Your task to perform on an android device: Empty the shopping cart on bestbuy. Add razer blade to the cart on bestbuy Image 0: 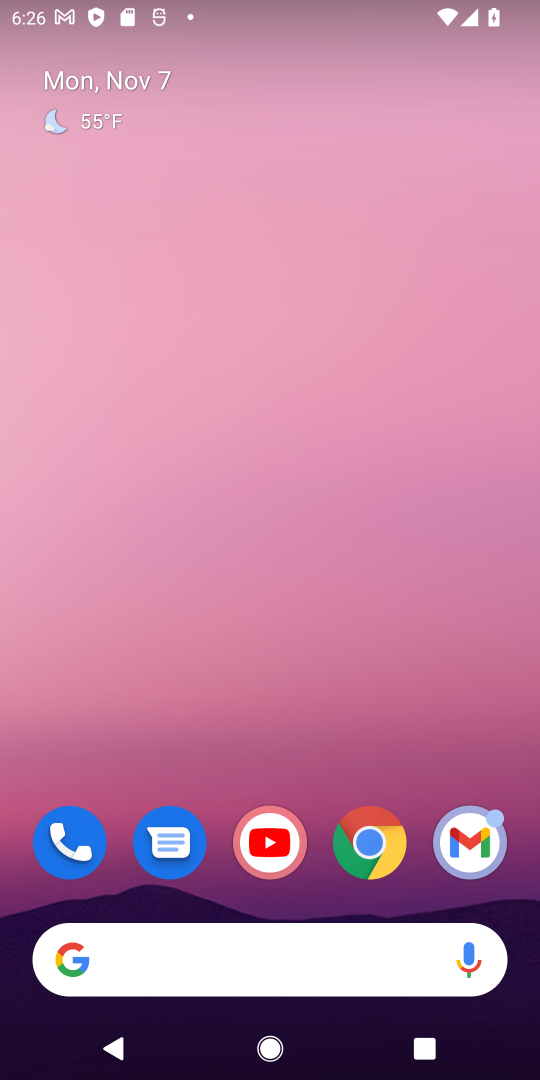
Step 0: press home button
Your task to perform on an android device: Empty the shopping cart on bestbuy. Add razer blade to the cart on bestbuy Image 1: 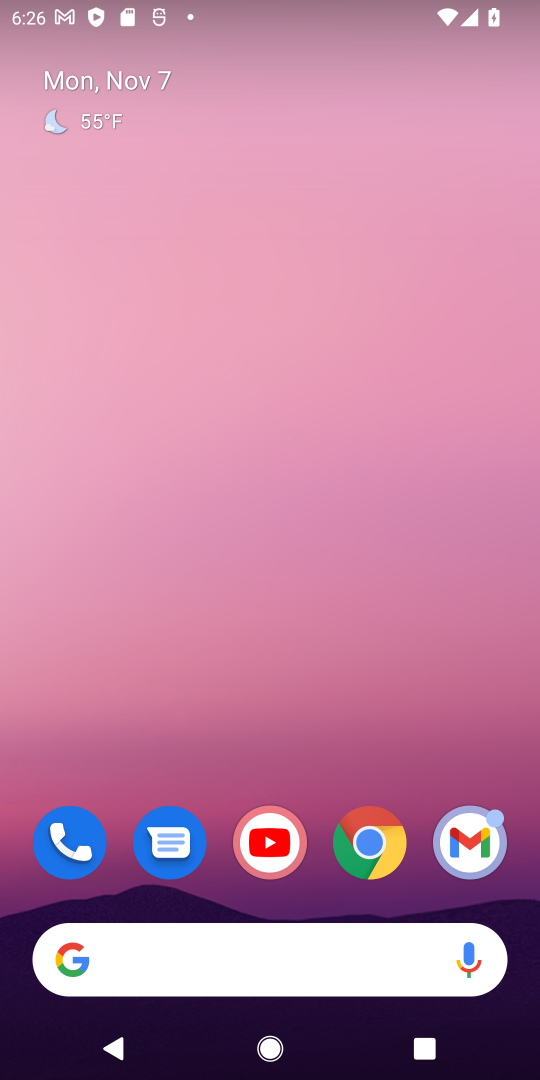
Step 1: click (386, 835)
Your task to perform on an android device: Empty the shopping cart on bestbuy. Add razer blade to the cart on bestbuy Image 2: 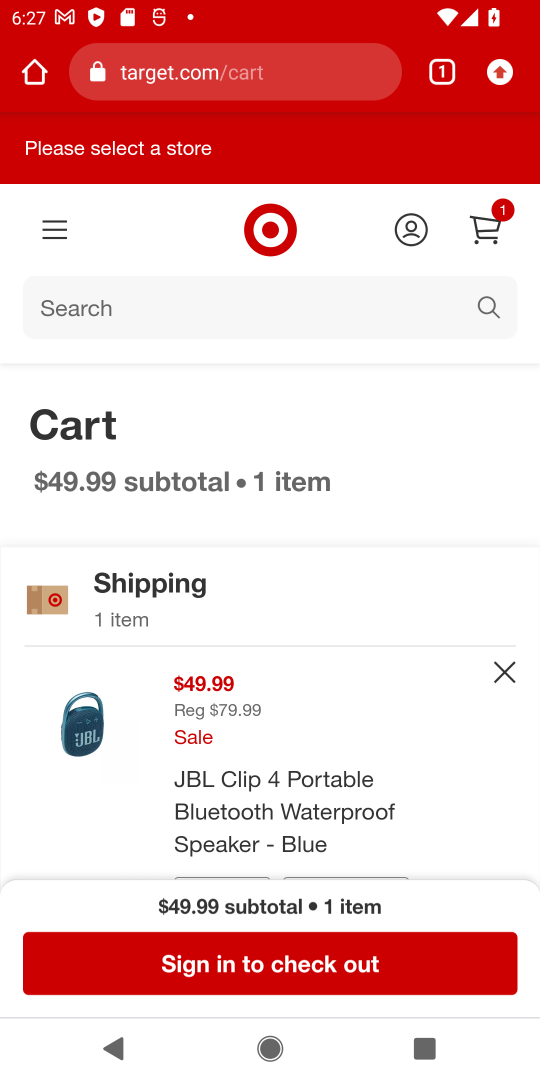
Step 2: click (247, 67)
Your task to perform on an android device: Empty the shopping cart on bestbuy. Add razer blade to the cart on bestbuy Image 3: 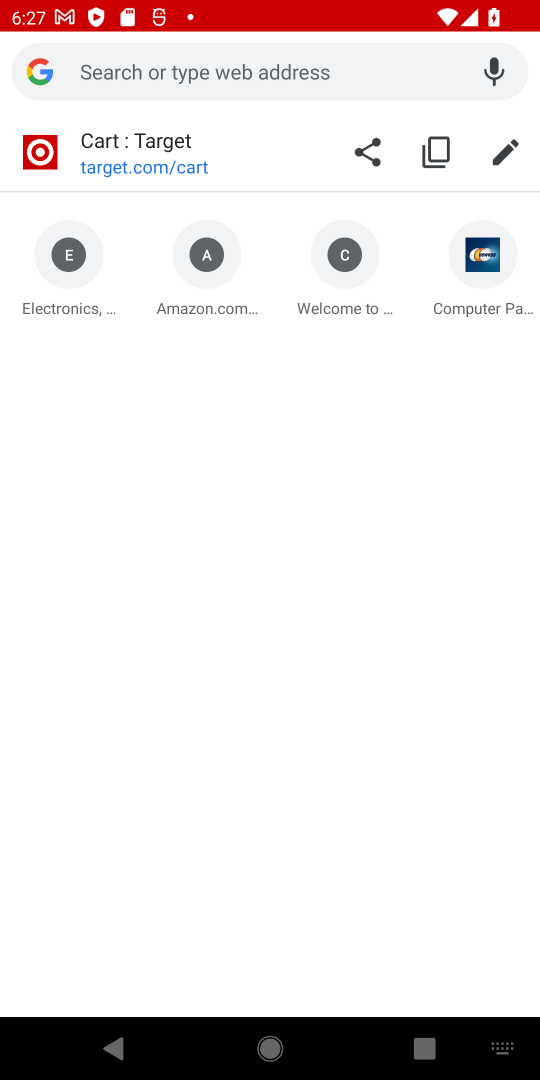
Step 3: type "bestbuy"
Your task to perform on an android device: Empty the shopping cart on bestbuy. Add razer blade to the cart on bestbuy Image 4: 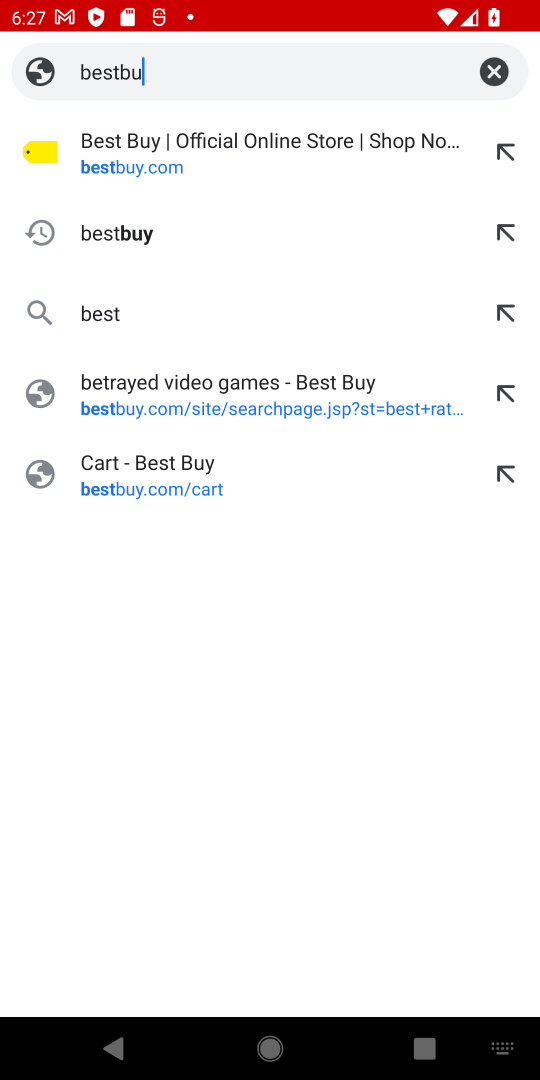
Step 4: press enter
Your task to perform on an android device: Empty the shopping cart on bestbuy. Add razer blade to the cart on bestbuy Image 5: 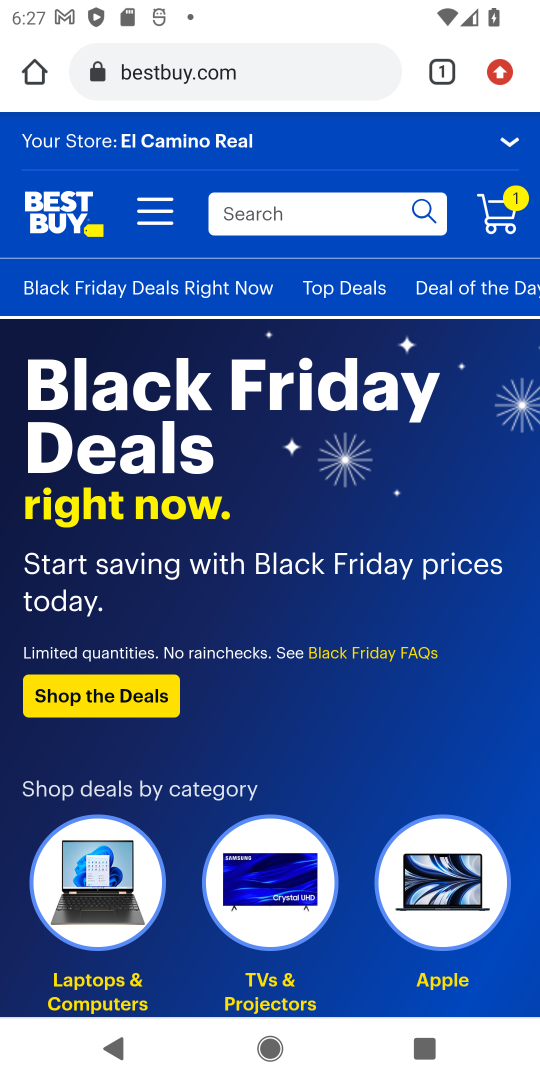
Step 5: click (362, 213)
Your task to perform on an android device: Empty the shopping cart on bestbuy. Add razer blade to the cart on bestbuy Image 6: 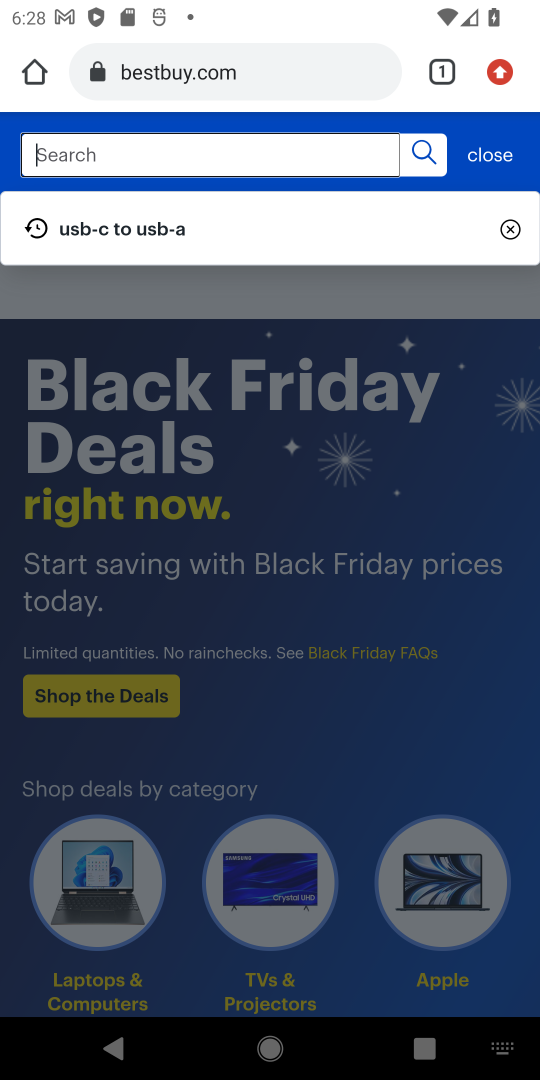
Step 6: type "razer blade"
Your task to perform on an android device: Empty the shopping cart on bestbuy. Add razer blade to the cart on bestbuy Image 7: 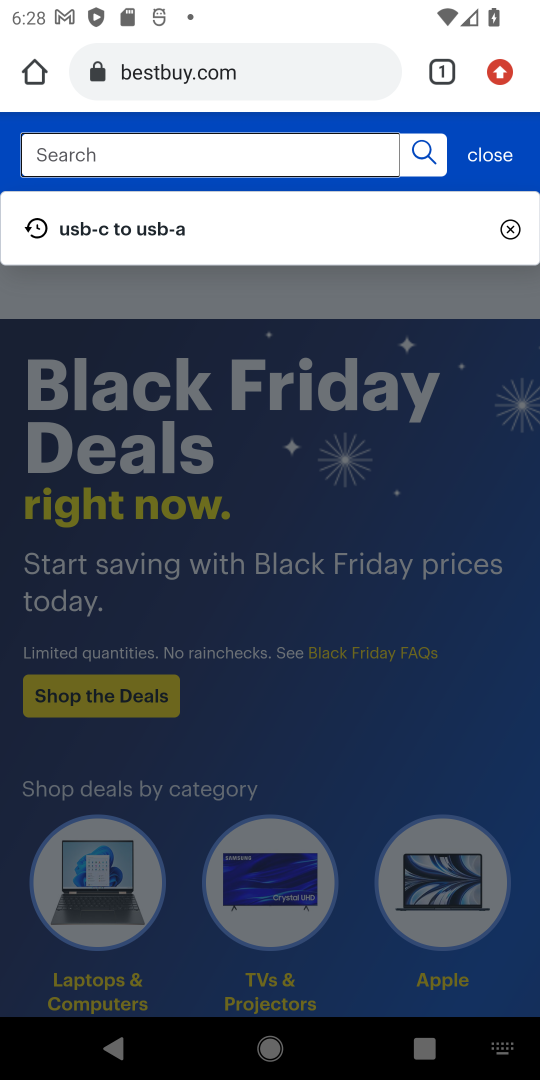
Step 7: press enter
Your task to perform on an android device: Empty the shopping cart on bestbuy. Add razer blade to the cart on bestbuy Image 8: 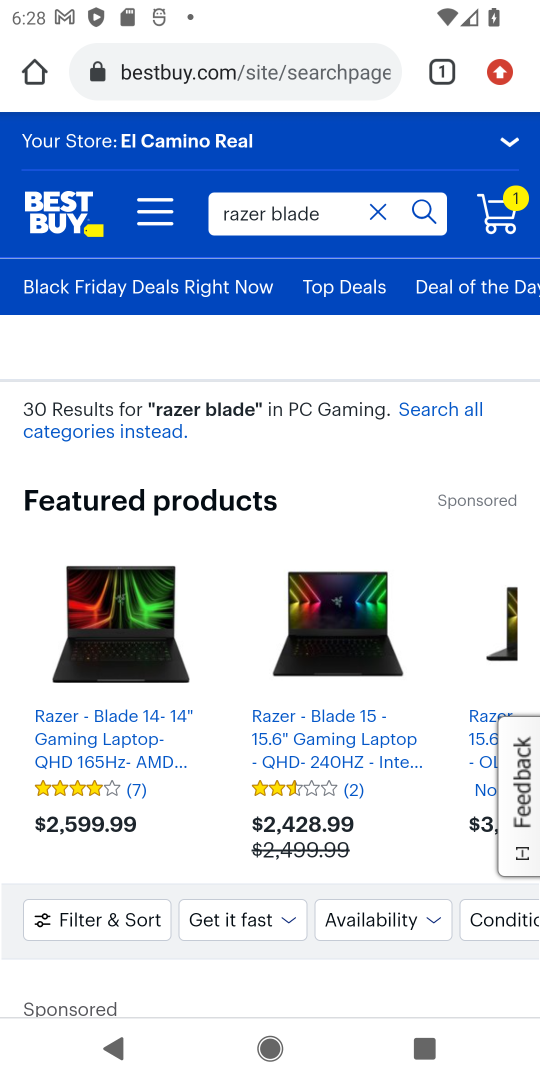
Step 8: drag from (312, 877) to (532, 320)
Your task to perform on an android device: Empty the shopping cart on bestbuy. Add razer blade to the cart on bestbuy Image 9: 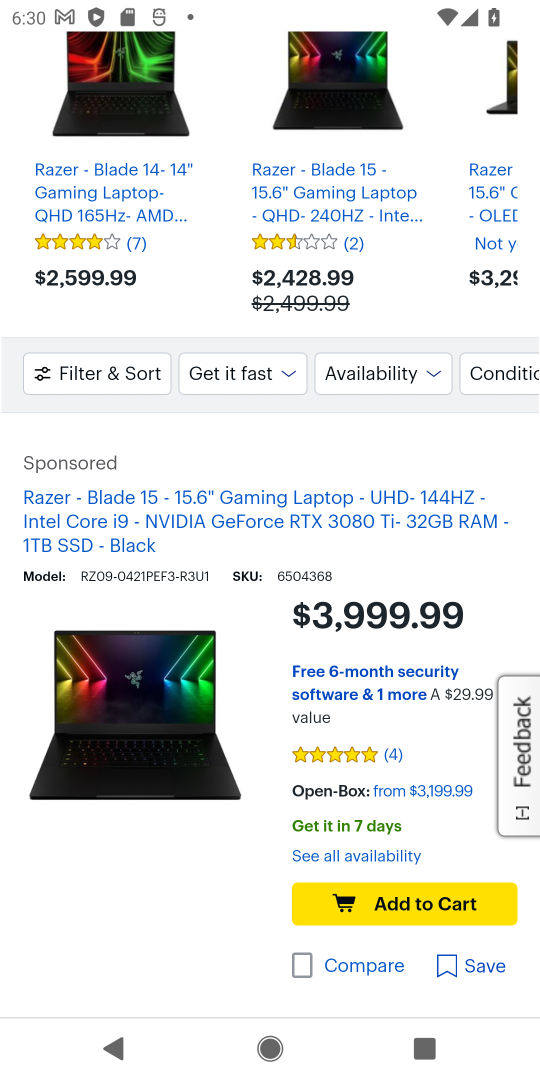
Step 9: drag from (158, 817) to (356, 521)
Your task to perform on an android device: Empty the shopping cart on bestbuy. Add razer blade to the cart on bestbuy Image 10: 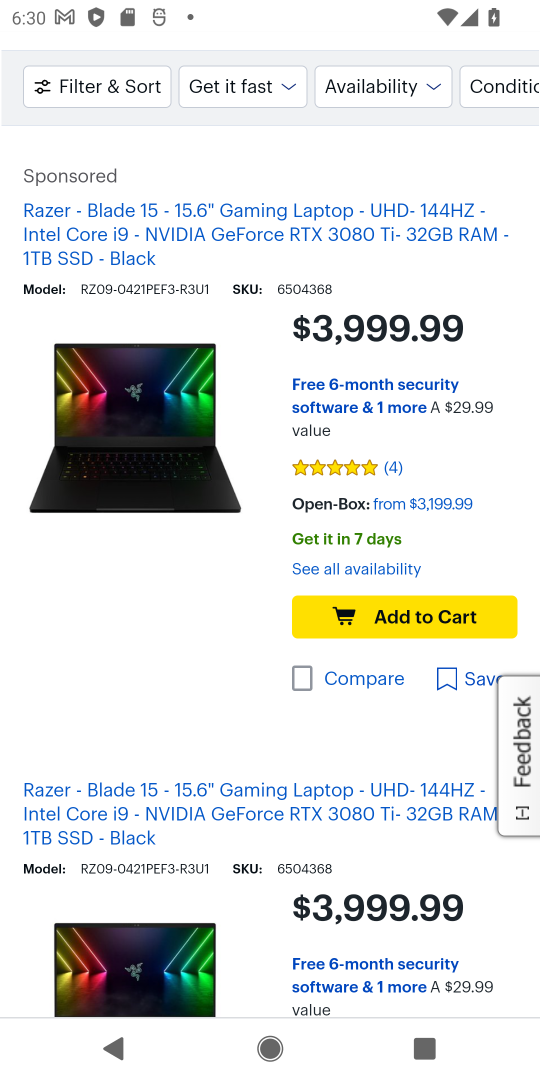
Step 10: click (396, 618)
Your task to perform on an android device: Empty the shopping cart on bestbuy. Add razer blade to the cart on bestbuy Image 11: 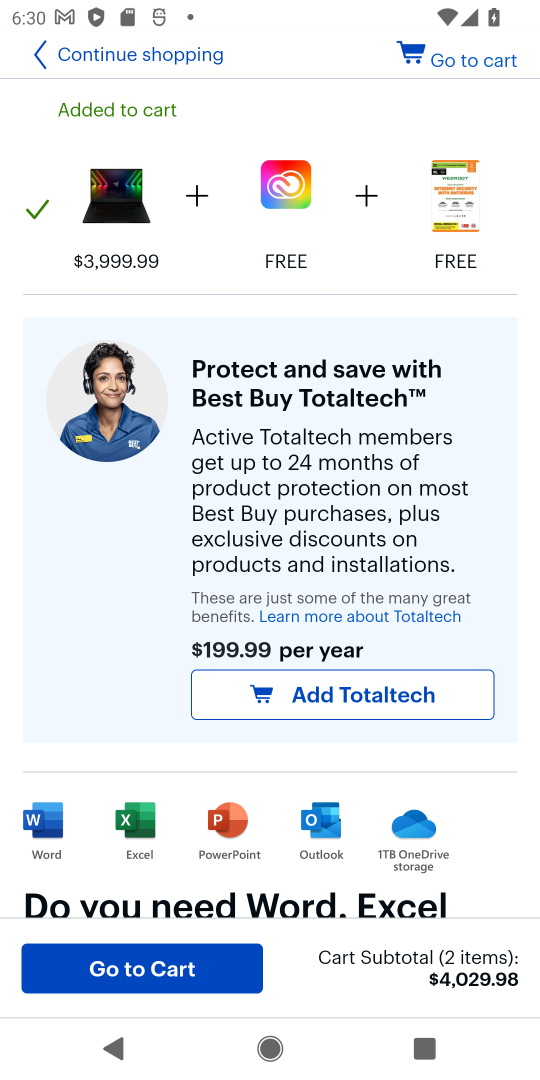
Step 11: click (464, 56)
Your task to perform on an android device: Empty the shopping cart on bestbuy. Add razer blade to the cart on bestbuy Image 12: 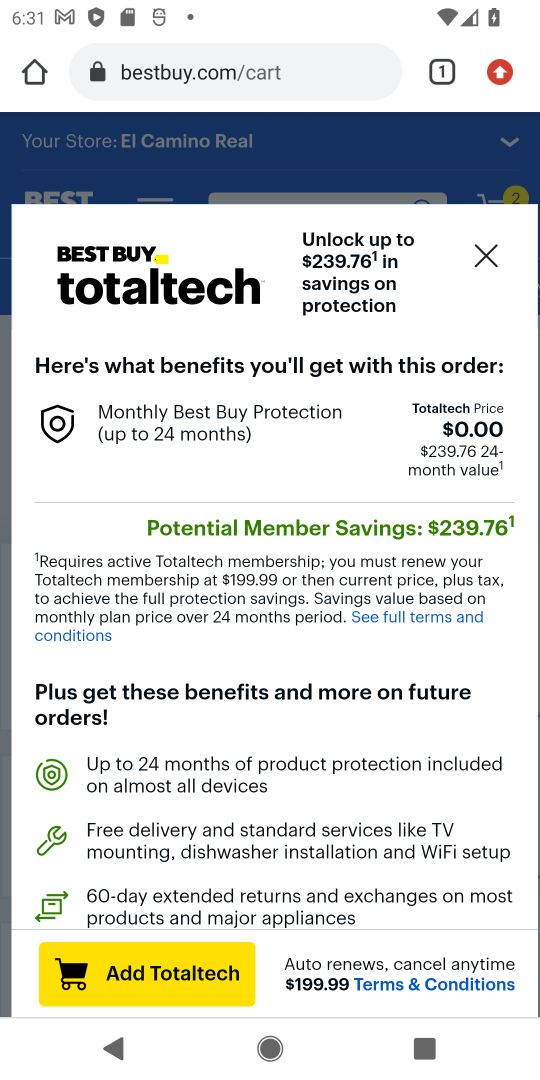
Step 12: click (484, 252)
Your task to perform on an android device: Empty the shopping cart on bestbuy. Add razer blade to the cart on bestbuy Image 13: 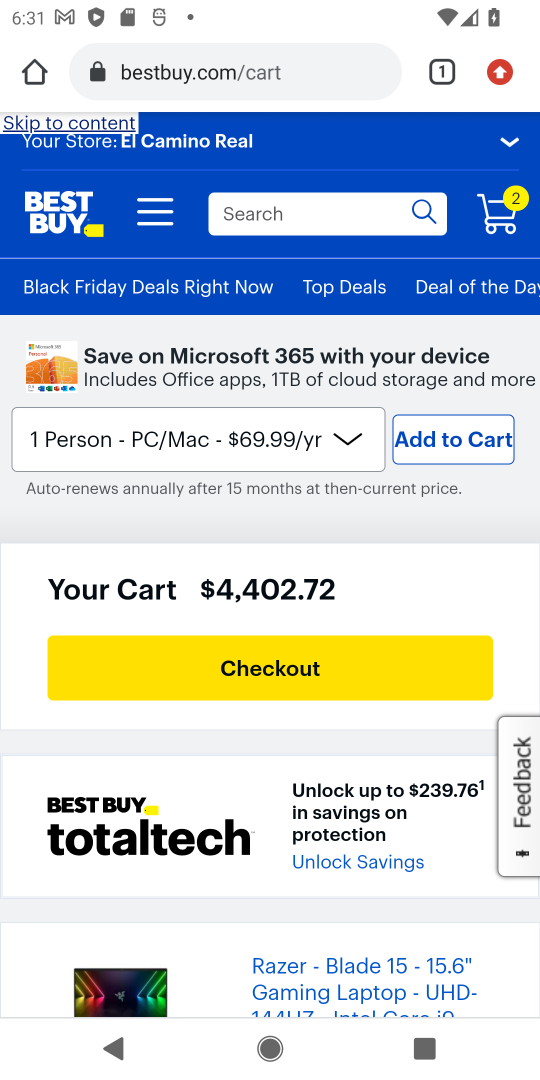
Step 13: drag from (253, 867) to (467, 451)
Your task to perform on an android device: Empty the shopping cart on bestbuy. Add razer blade to the cart on bestbuy Image 14: 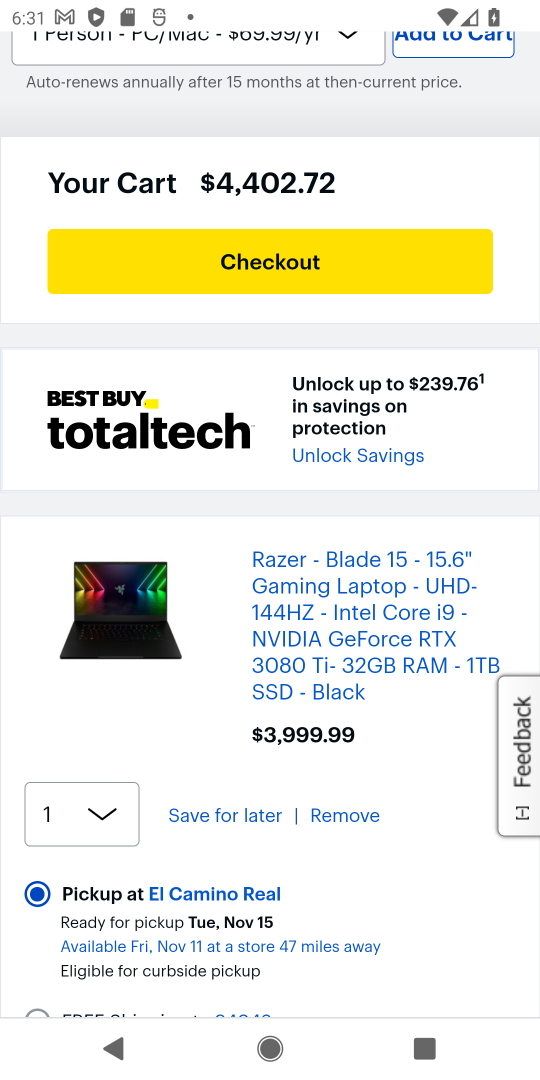
Step 14: drag from (257, 763) to (504, 255)
Your task to perform on an android device: Empty the shopping cart on bestbuy. Add razer blade to the cart on bestbuy Image 15: 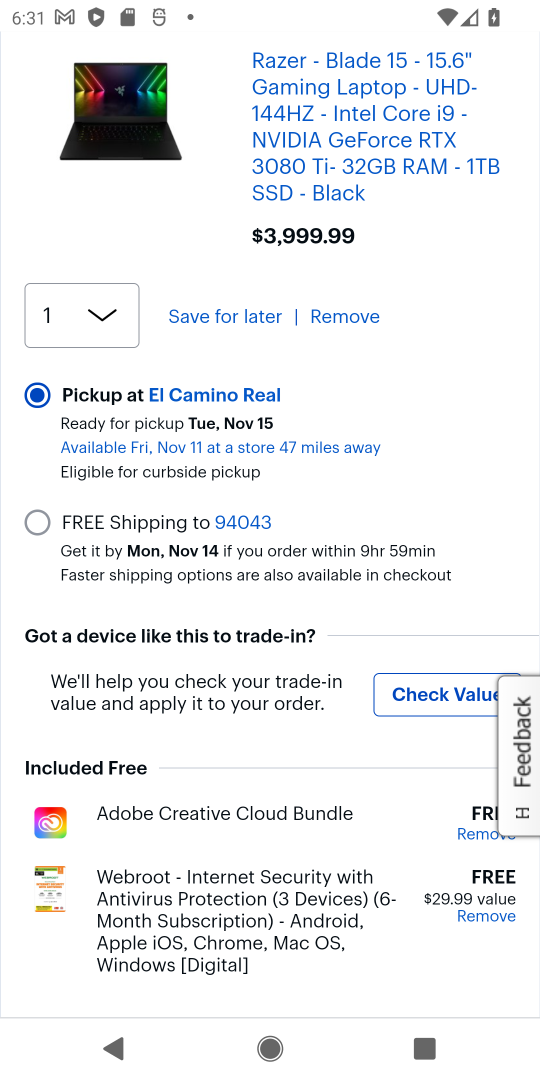
Step 15: drag from (255, 862) to (460, 205)
Your task to perform on an android device: Empty the shopping cart on bestbuy. Add razer blade to the cart on bestbuy Image 16: 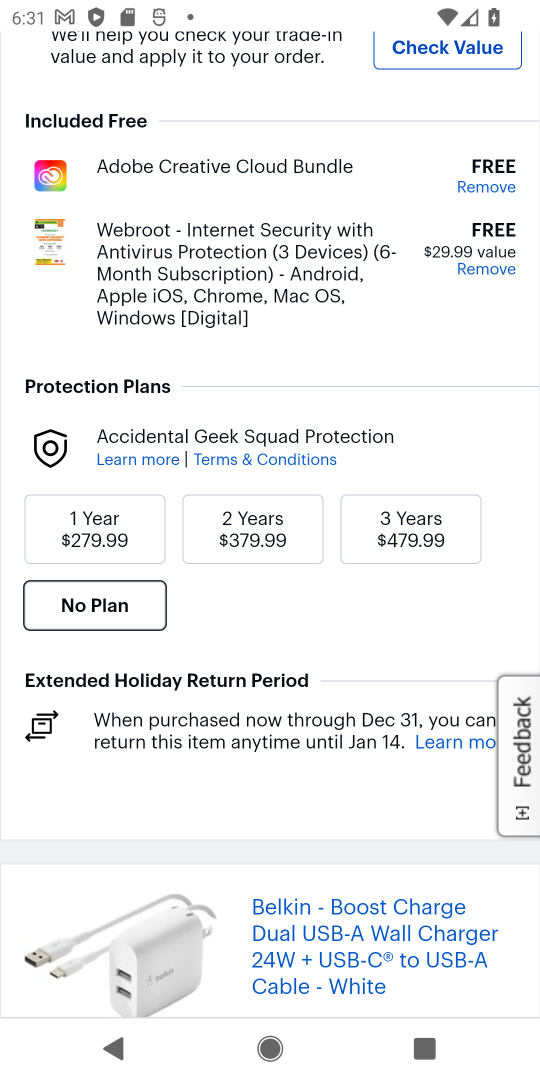
Step 16: drag from (248, 816) to (348, 294)
Your task to perform on an android device: Empty the shopping cart on bestbuy. Add razer blade to the cart on bestbuy Image 17: 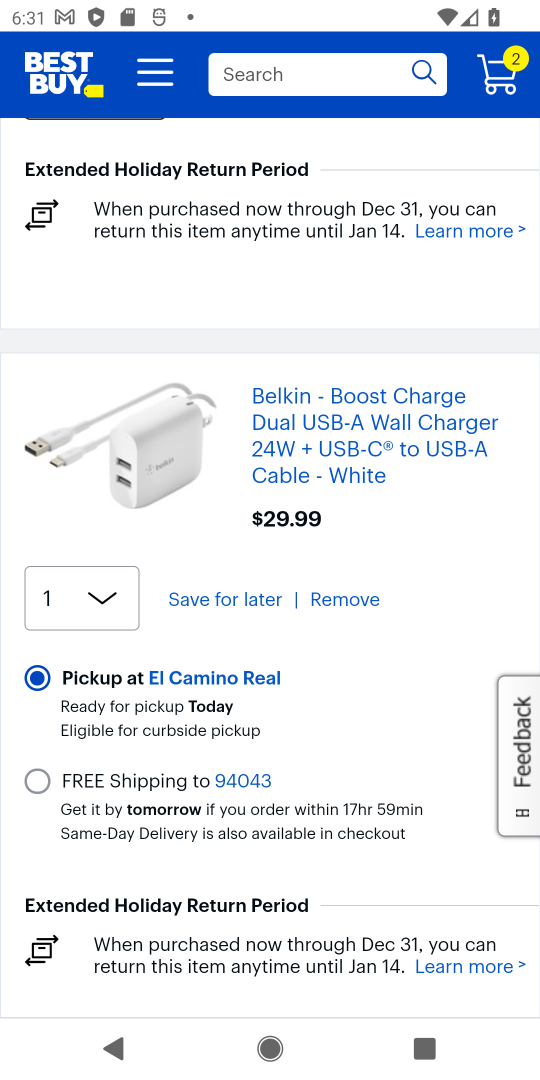
Step 17: drag from (308, 800) to (399, 376)
Your task to perform on an android device: Empty the shopping cart on bestbuy. Add razer blade to the cart on bestbuy Image 18: 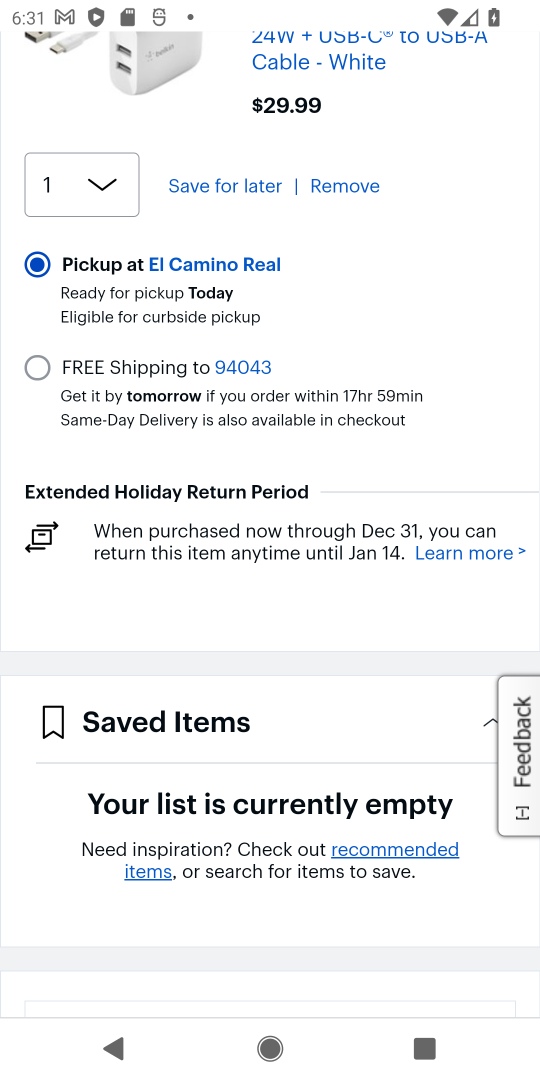
Step 18: drag from (287, 766) to (396, 311)
Your task to perform on an android device: Empty the shopping cart on bestbuy. Add razer blade to the cart on bestbuy Image 19: 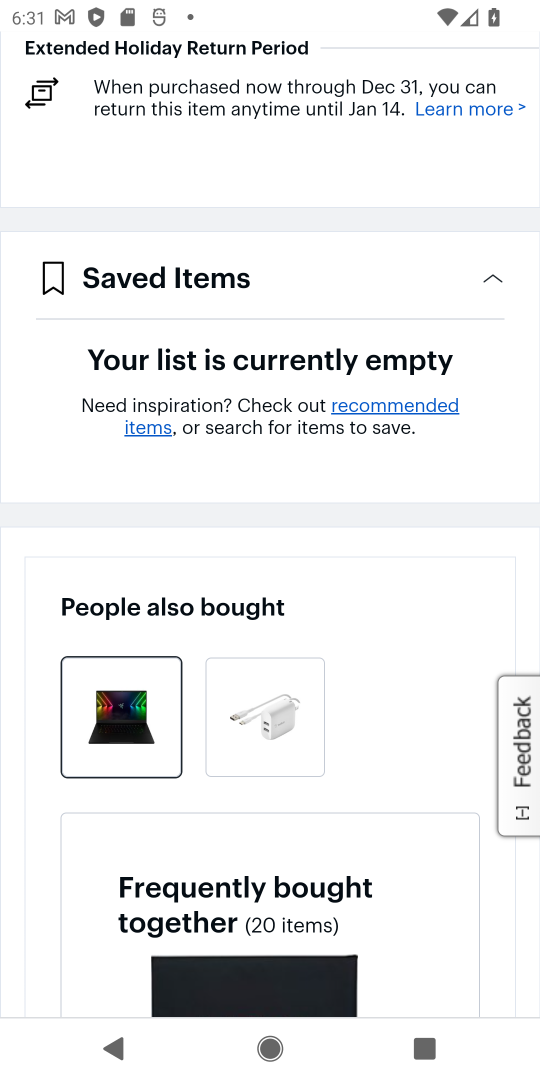
Step 19: drag from (310, 833) to (359, 854)
Your task to perform on an android device: Empty the shopping cart on bestbuy. Add razer blade to the cart on bestbuy Image 20: 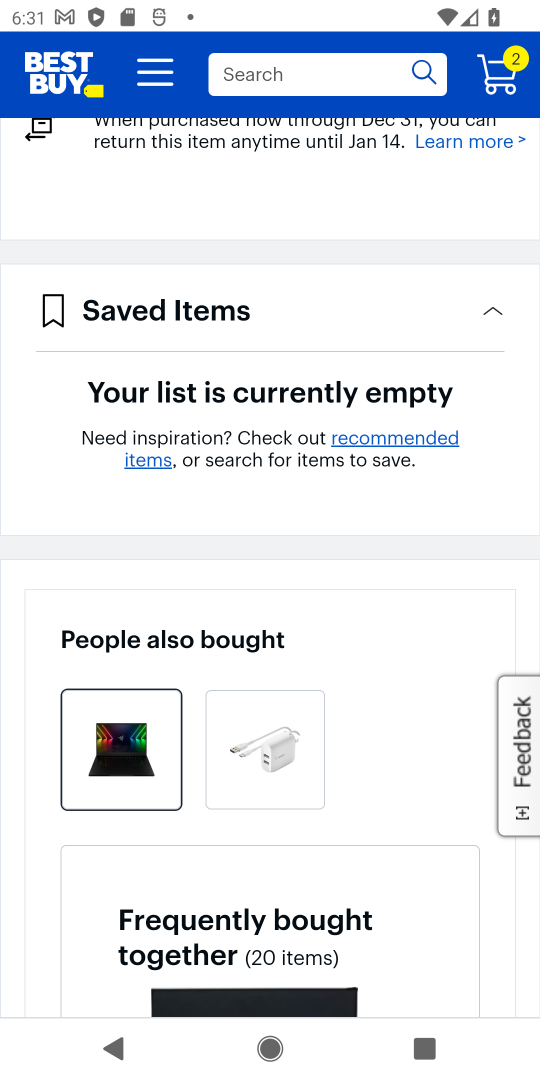
Step 20: drag from (423, 251) to (307, 1017)
Your task to perform on an android device: Empty the shopping cart on bestbuy. Add razer blade to the cart on bestbuy Image 21: 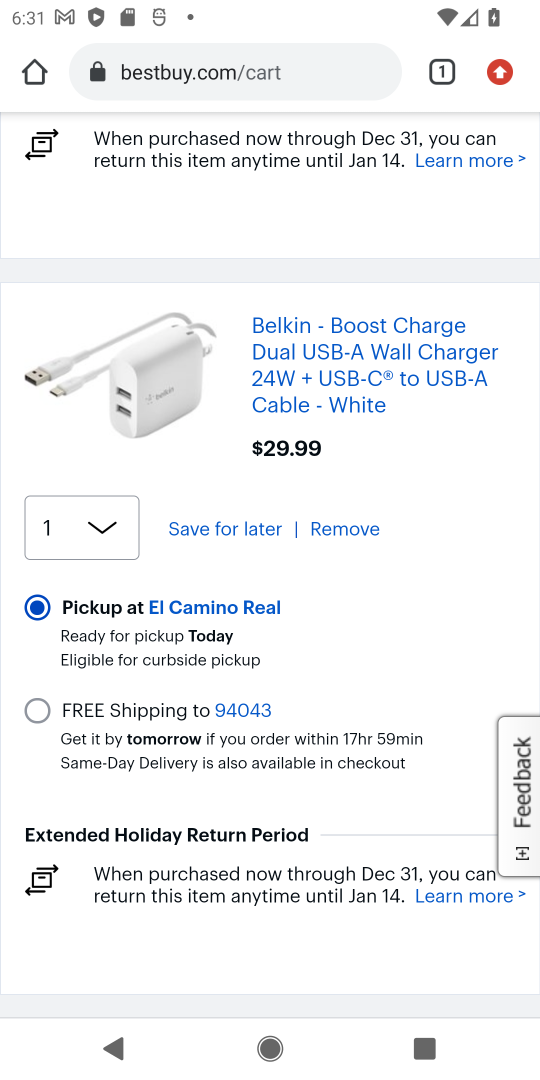
Step 21: click (332, 523)
Your task to perform on an android device: Empty the shopping cart on bestbuy. Add razer blade to the cart on bestbuy Image 22: 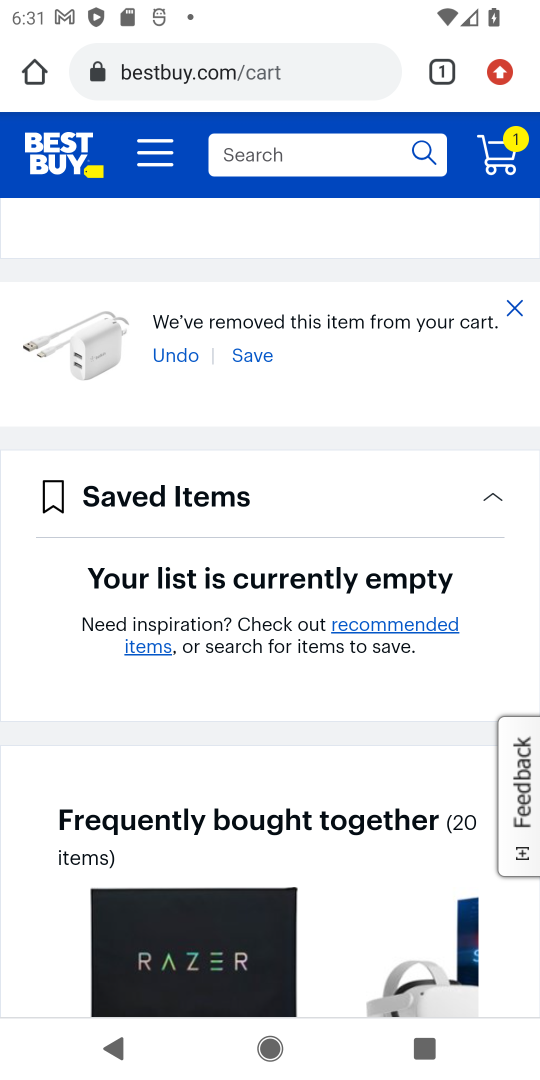
Step 22: task complete